Your task to perform on an android device: Do I have any events this weekend? Image 0: 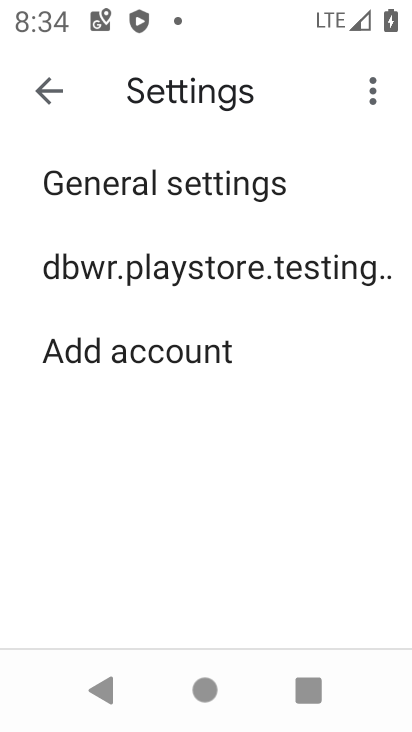
Step 0: press home button
Your task to perform on an android device: Do I have any events this weekend? Image 1: 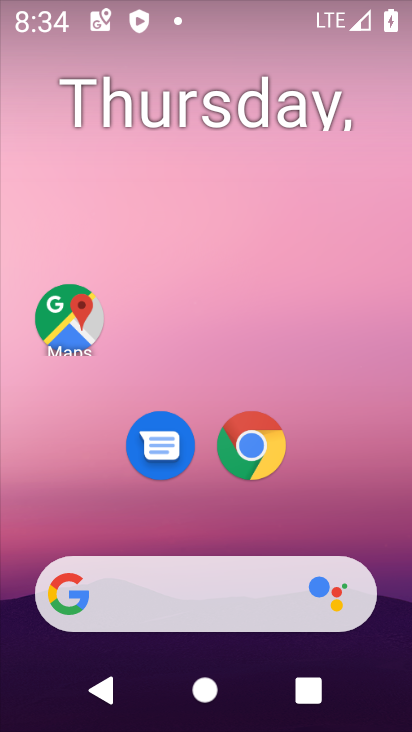
Step 1: drag from (386, 616) to (346, 47)
Your task to perform on an android device: Do I have any events this weekend? Image 2: 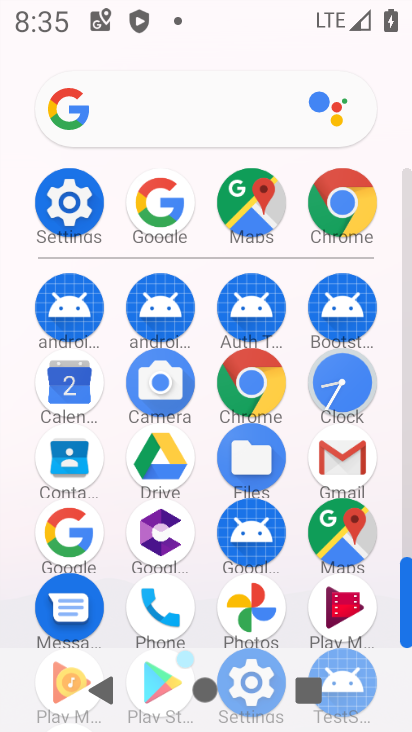
Step 2: click (72, 398)
Your task to perform on an android device: Do I have any events this weekend? Image 3: 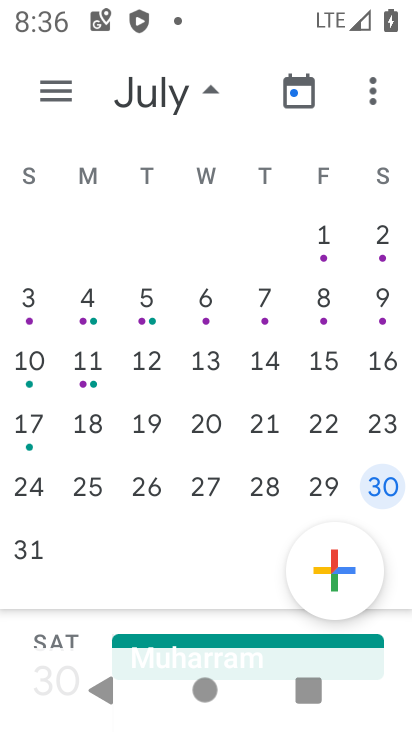
Step 3: task complete